Your task to perform on an android device: move an email to a new category in the gmail app Image 0: 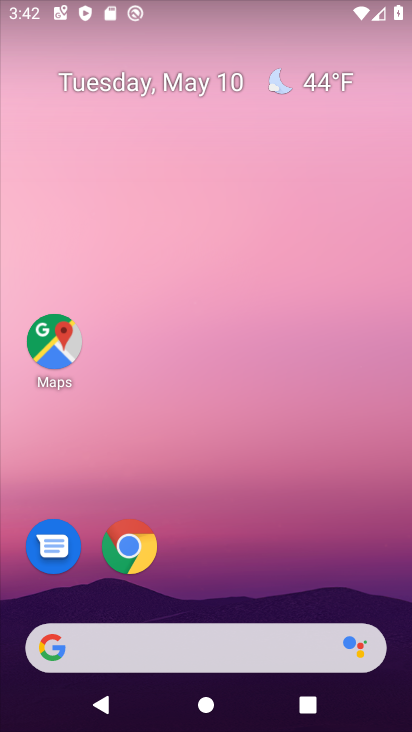
Step 0: drag from (204, 603) to (292, 54)
Your task to perform on an android device: move an email to a new category in the gmail app Image 1: 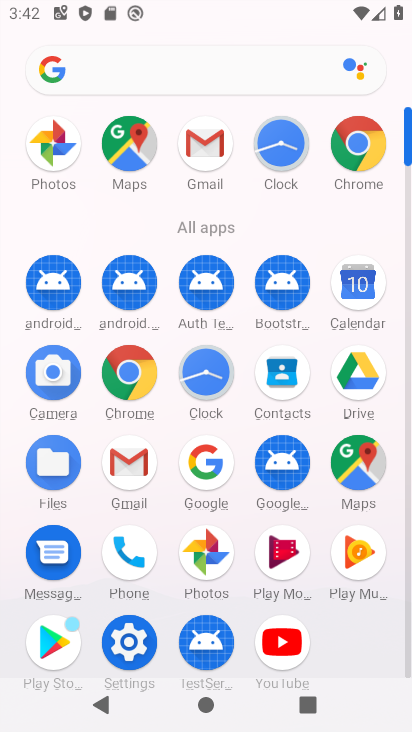
Step 1: click (197, 145)
Your task to perform on an android device: move an email to a new category in the gmail app Image 2: 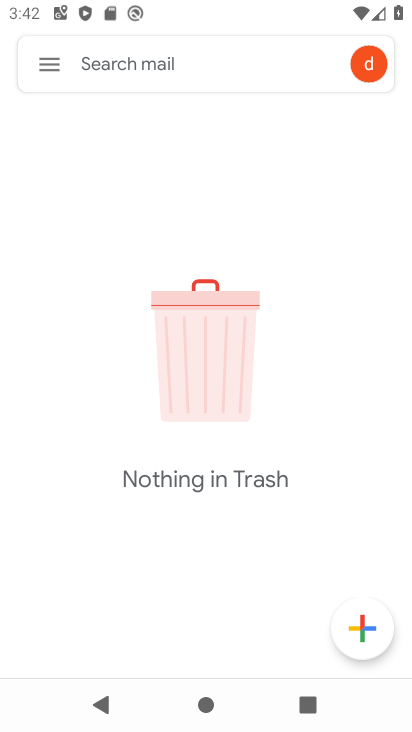
Step 2: click (55, 53)
Your task to perform on an android device: move an email to a new category in the gmail app Image 3: 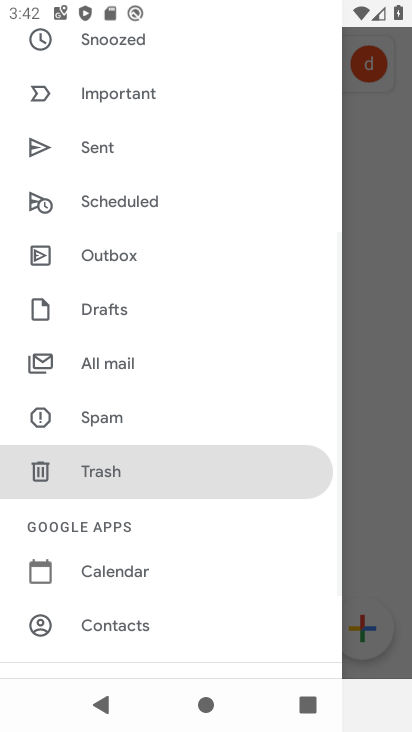
Step 3: click (122, 360)
Your task to perform on an android device: move an email to a new category in the gmail app Image 4: 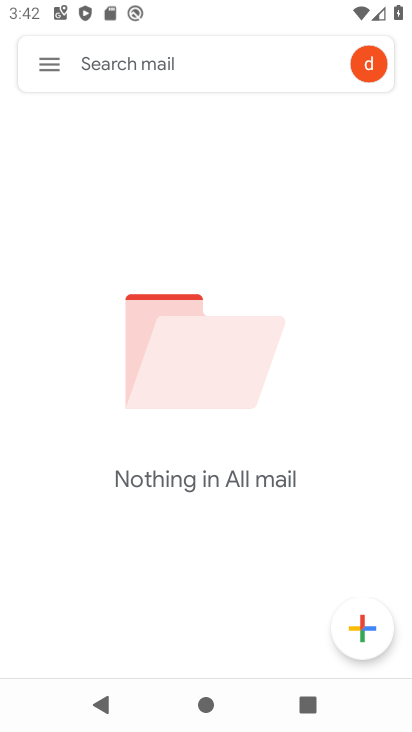
Step 4: task complete